Your task to perform on an android device: turn on data saver in the chrome app Image 0: 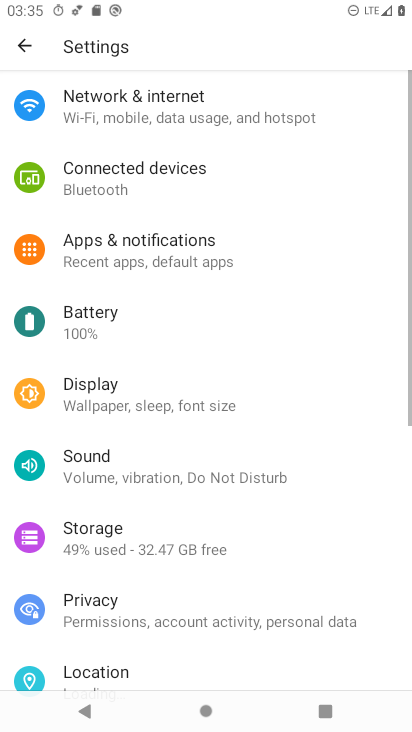
Step 0: press home button
Your task to perform on an android device: turn on data saver in the chrome app Image 1: 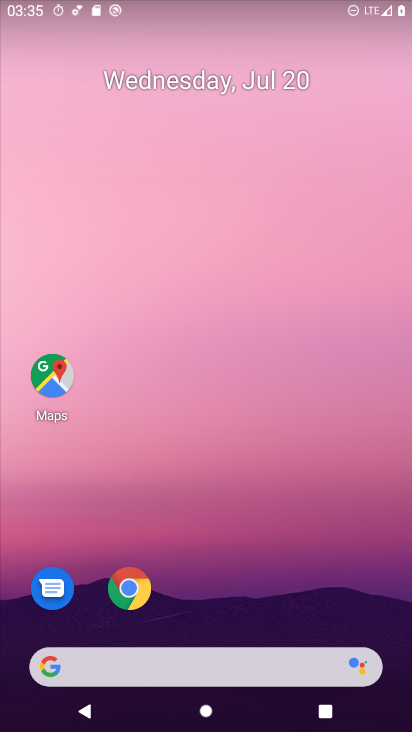
Step 1: drag from (182, 621) to (82, 15)
Your task to perform on an android device: turn on data saver in the chrome app Image 2: 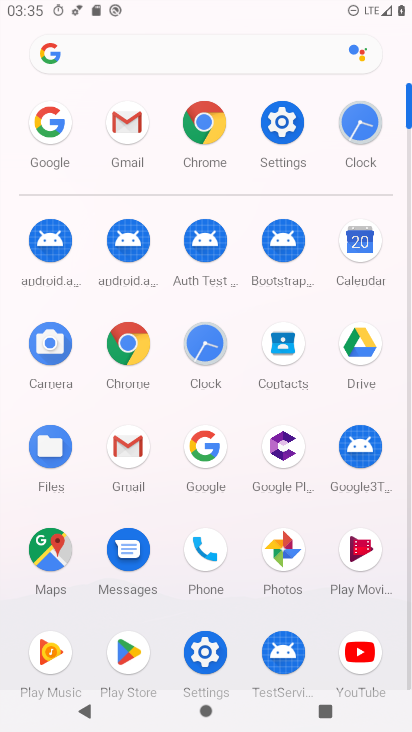
Step 2: click (128, 356)
Your task to perform on an android device: turn on data saver in the chrome app Image 3: 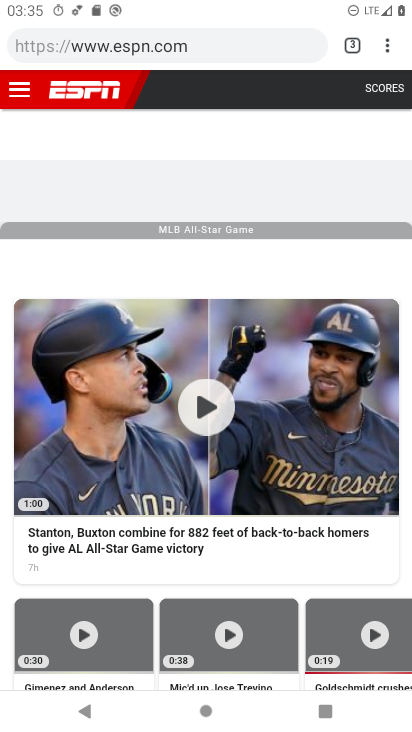
Step 3: click (391, 48)
Your task to perform on an android device: turn on data saver in the chrome app Image 4: 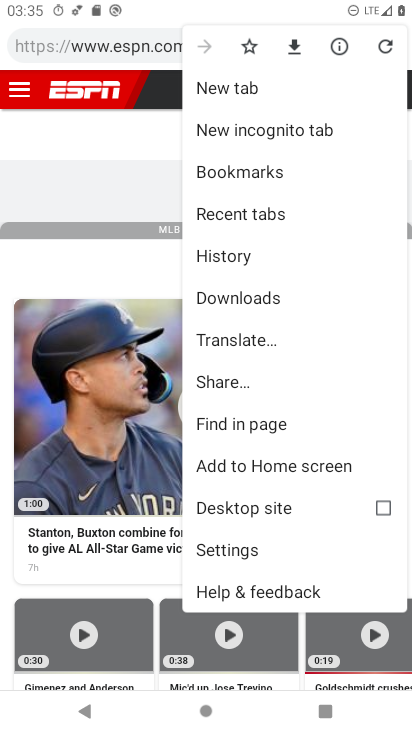
Step 4: click (229, 547)
Your task to perform on an android device: turn on data saver in the chrome app Image 5: 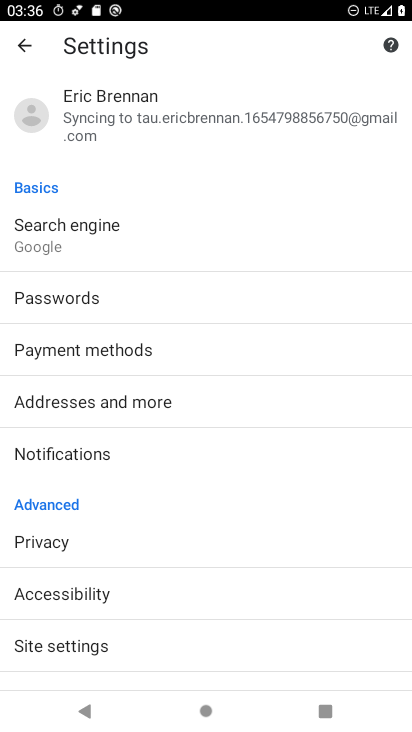
Step 5: drag from (202, 567) to (182, 122)
Your task to perform on an android device: turn on data saver in the chrome app Image 6: 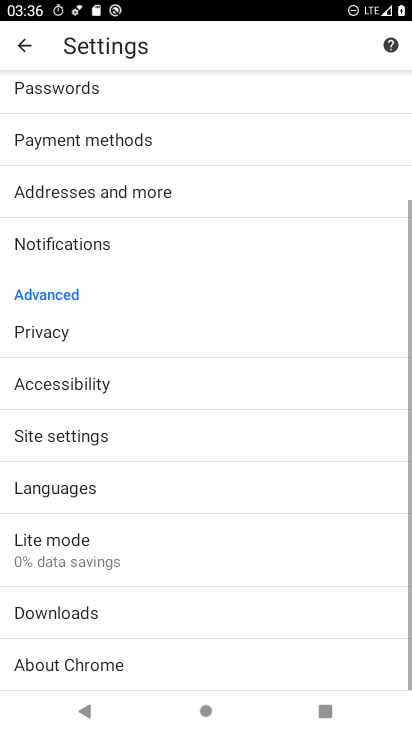
Step 6: click (45, 556)
Your task to perform on an android device: turn on data saver in the chrome app Image 7: 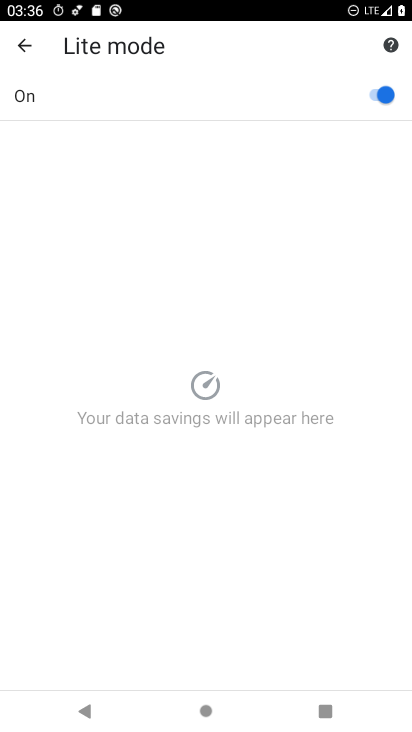
Step 7: task complete